Your task to perform on an android device: turn off notifications settings in the gmail app Image 0: 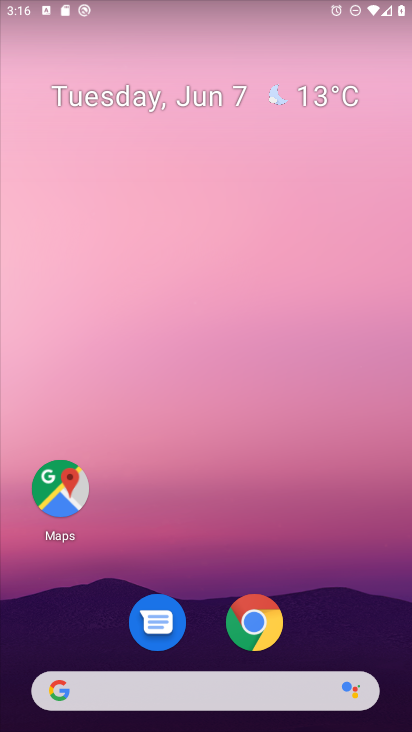
Step 0: drag from (333, 633) to (240, 33)
Your task to perform on an android device: turn off notifications settings in the gmail app Image 1: 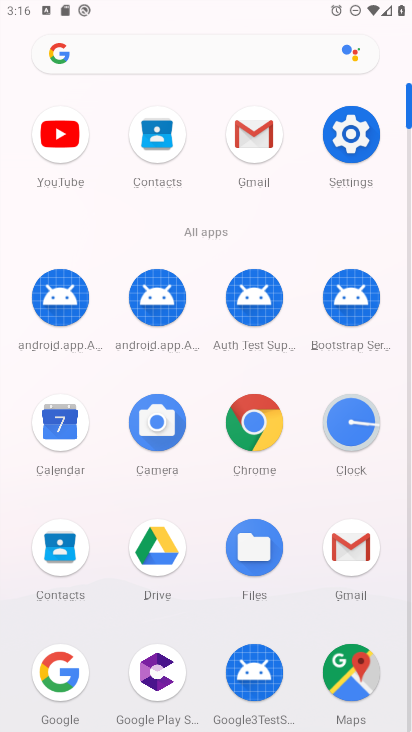
Step 1: click (256, 140)
Your task to perform on an android device: turn off notifications settings in the gmail app Image 2: 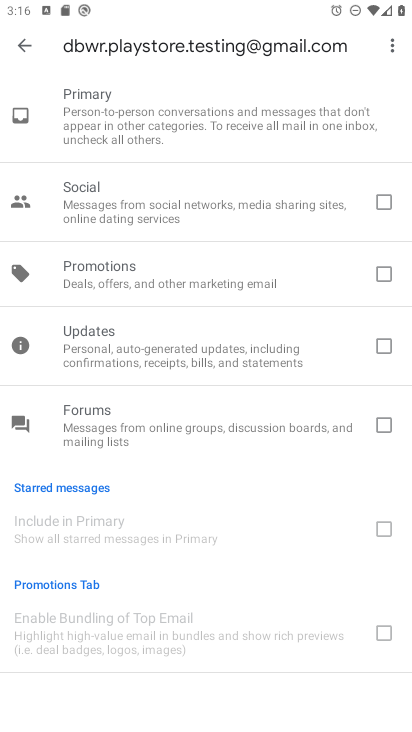
Step 2: drag from (159, 192) to (168, 316)
Your task to perform on an android device: turn off notifications settings in the gmail app Image 3: 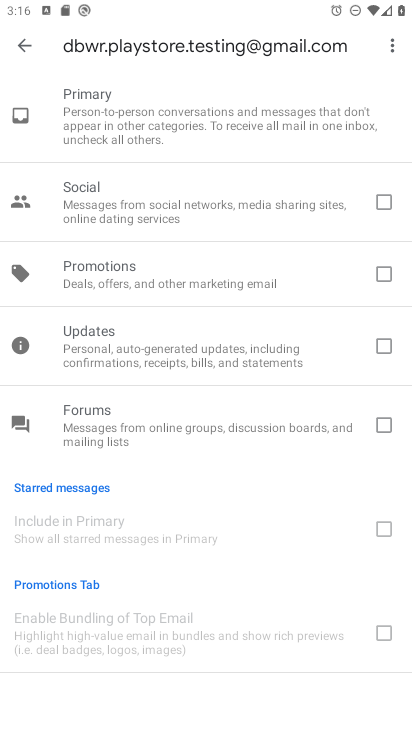
Step 3: click (28, 40)
Your task to perform on an android device: turn off notifications settings in the gmail app Image 4: 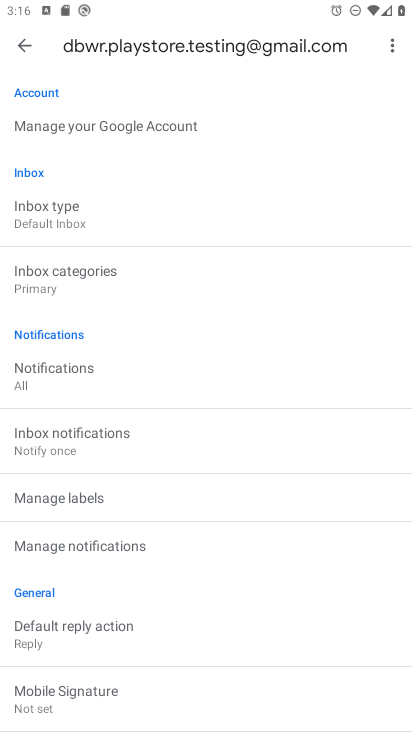
Step 4: click (66, 543)
Your task to perform on an android device: turn off notifications settings in the gmail app Image 5: 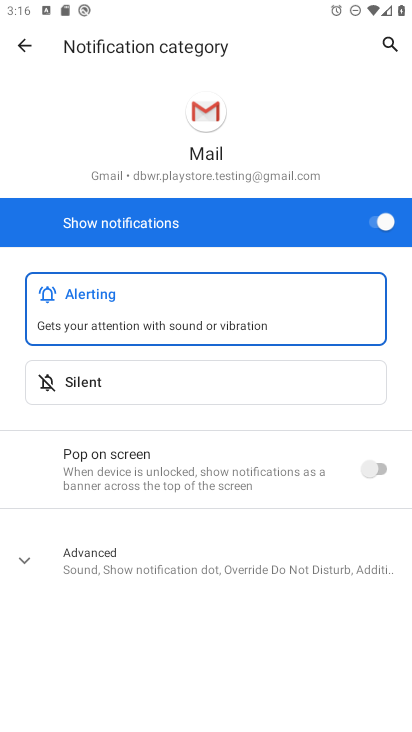
Step 5: click (378, 228)
Your task to perform on an android device: turn off notifications settings in the gmail app Image 6: 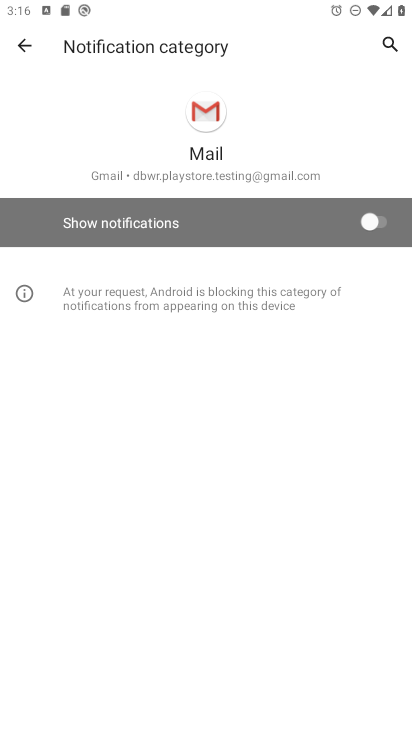
Step 6: task complete